Your task to perform on an android device: What's on my calendar tomorrow? Image 0: 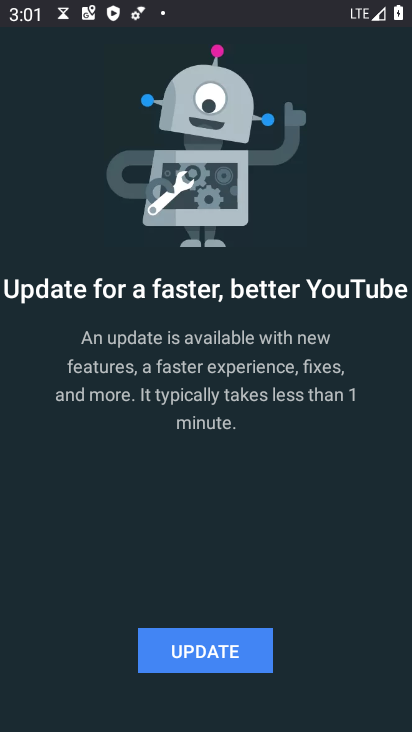
Step 0: press home button
Your task to perform on an android device: What's on my calendar tomorrow? Image 1: 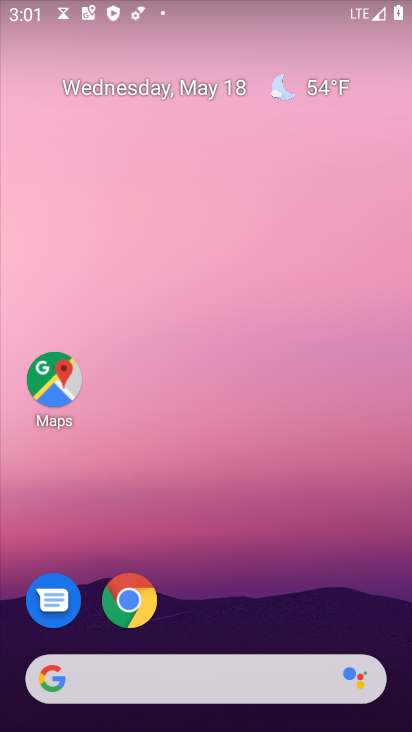
Step 1: click (402, 497)
Your task to perform on an android device: What's on my calendar tomorrow? Image 2: 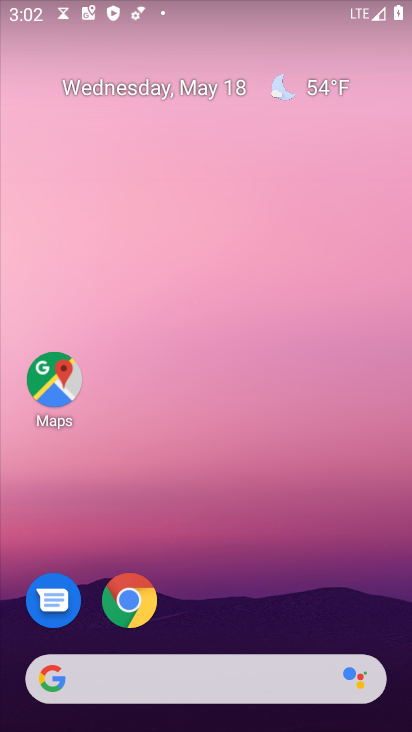
Step 2: drag from (167, 689) to (342, 67)
Your task to perform on an android device: What's on my calendar tomorrow? Image 3: 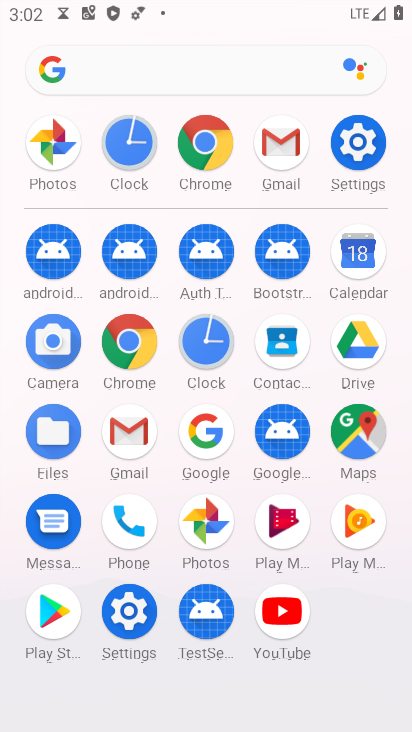
Step 3: click (369, 260)
Your task to perform on an android device: What's on my calendar tomorrow? Image 4: 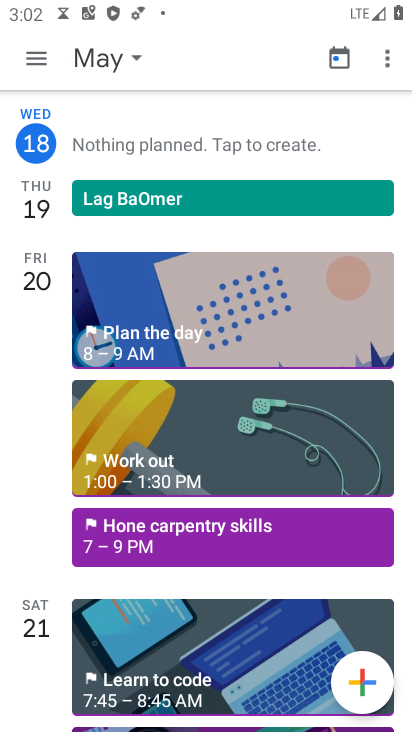
Step 4: click (113, 62)
Your task to perform on an android device: What's on my calendar tomorrow? Image 5: 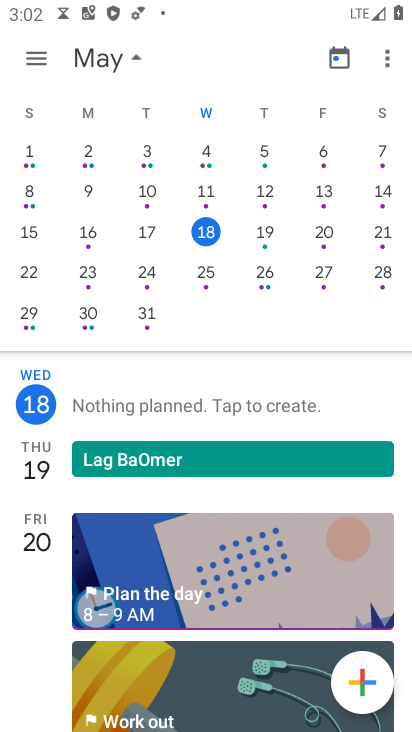
Step 5: click (263, 225)
Your task to perform on an android device: What's on my calendar tomorrow? Image 6: 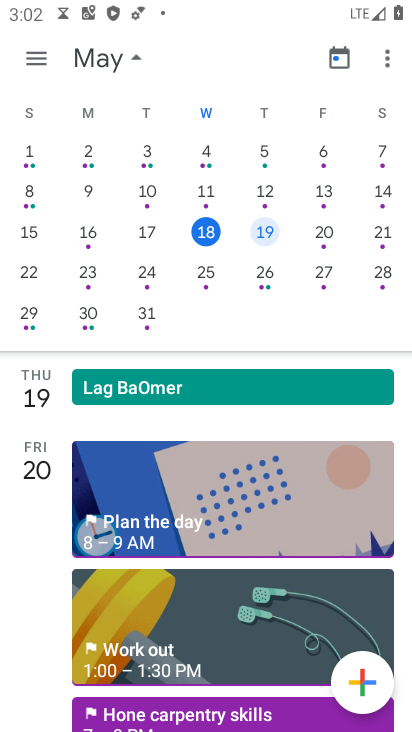
Step 6: click (39, 64)
Your task to perform on an android device: What's on my calendar tomorrow? Image 7: 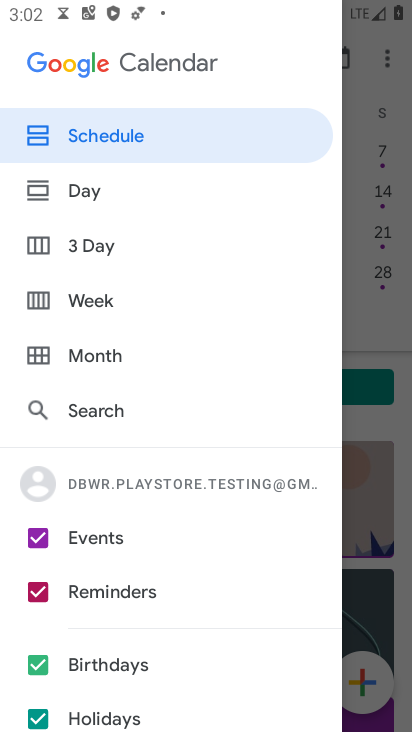
Step 7: click (106, 134)
Your task to perform on an android device: What's on my calendar tomorrow? Image 8: 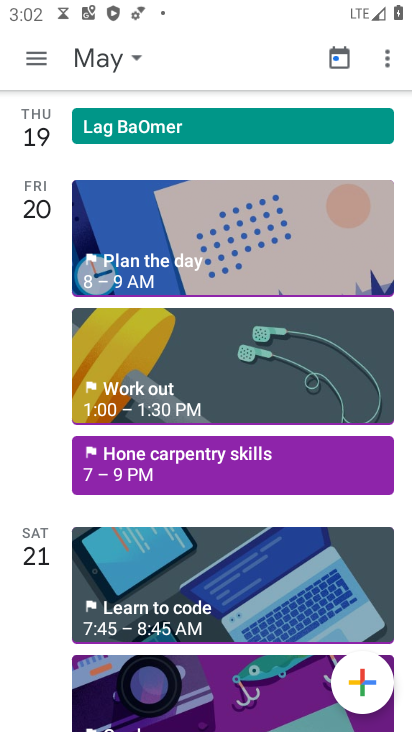
Step 8: click (219, 131)
Your task to perform on an android device: What's on my calendar tomorrow? Image 9: 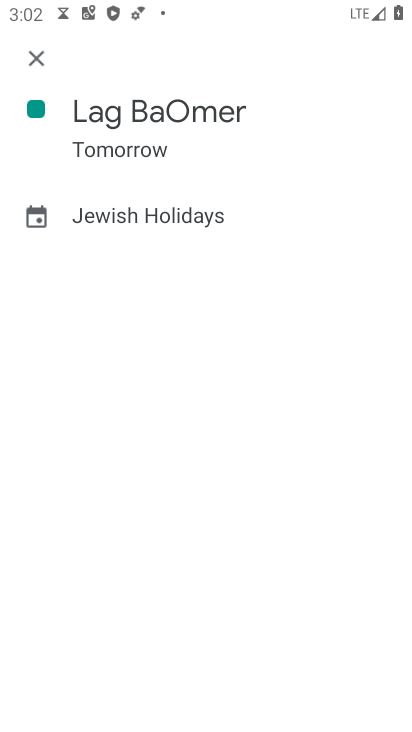
Step 9: task complete